Your task to perform on an android device: see tabs open on other devices in the chrome app Image 0: 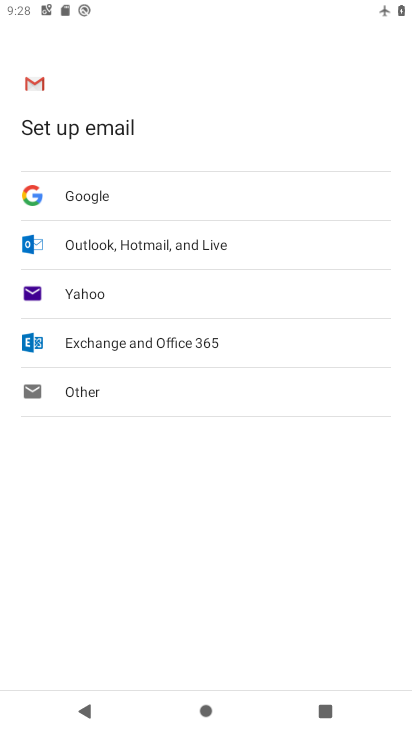
Step 0: press home button
Your task to perform on an android device: see tabs open on other devices in the chrome app Image 1: 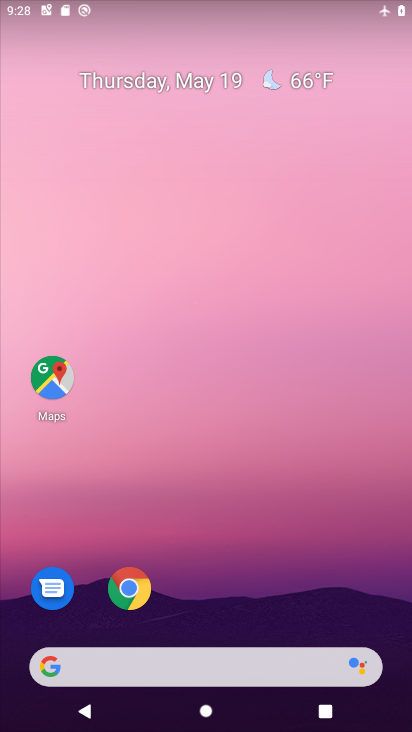
Step 1: drag from (369, 596) to (353, 253)
Your task to perform on an android device: see tabs open on other devices in the chrome app Image 2: 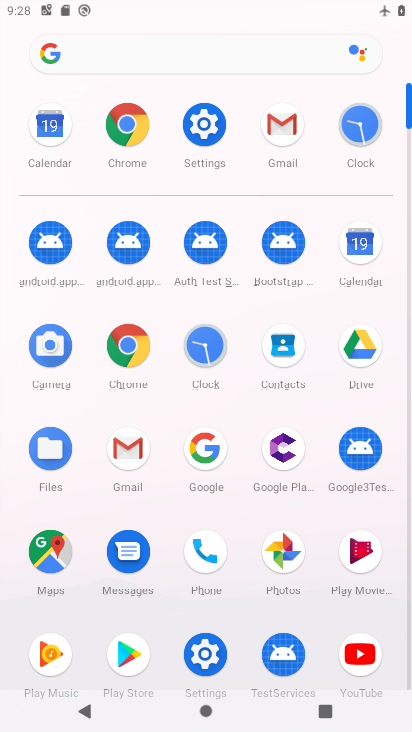
Step 2: click (132, 354)
Your task to perform on an android device: see tabs open on other devices in the chrome app Image 3: 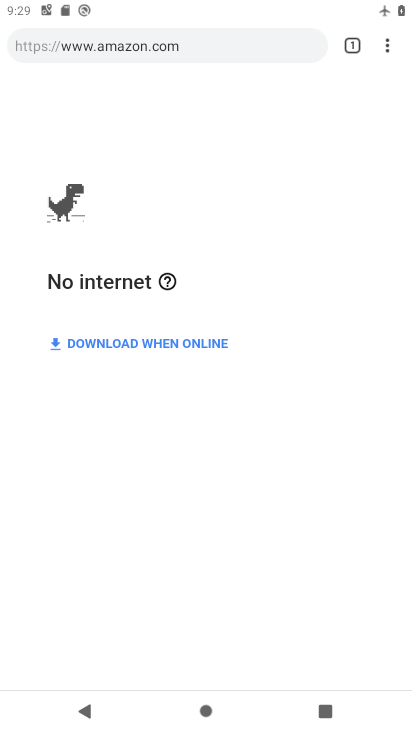
Step 3: click (392, 52)
Your task to perform on an android device: see tabs open on other devices in the chrome app Image 4: 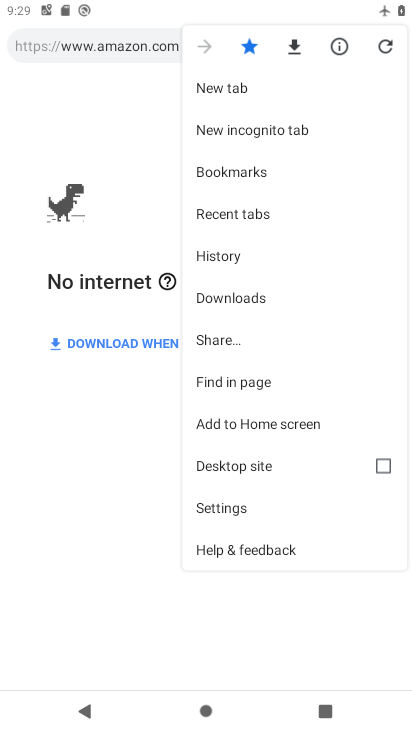
Step 4: click (251, 212)
Your task to perform on an android device: see tabs open on other devices in the chrome app Image 5: 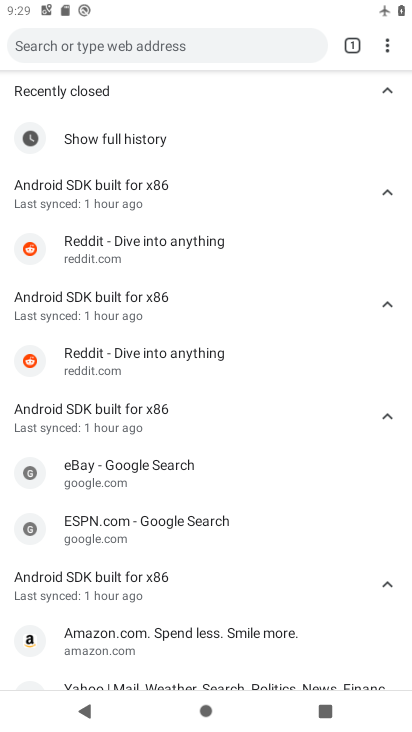
Step 5: click (353, 44)
Your task to perform on an android device: see tabs open on other devices in the chrome app Image 6: 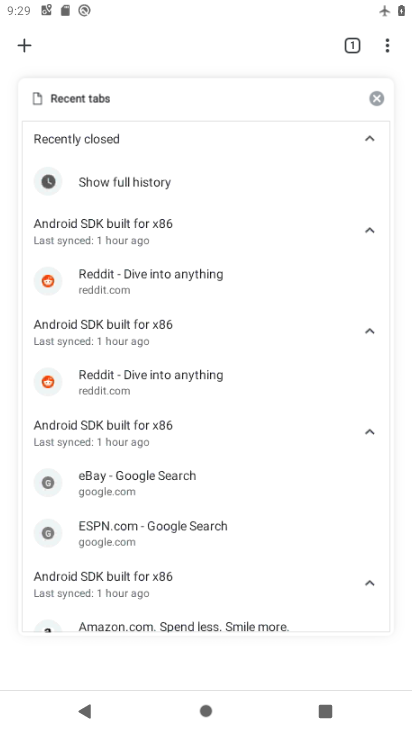
Step 6: task complete